Your task to perform on an android device: set the stopwatch Image 0: 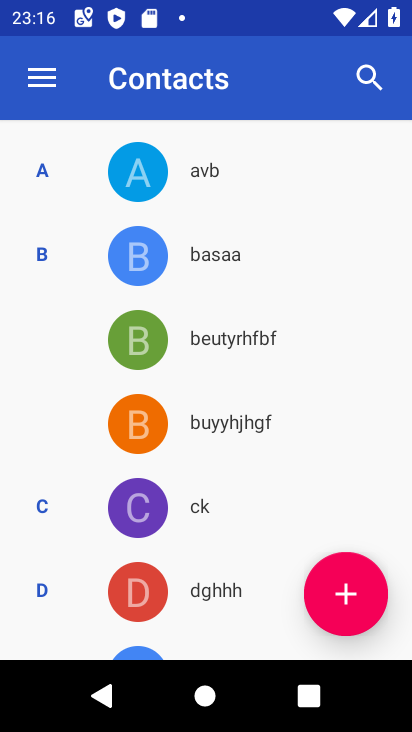
Step 0: press home button
Your task to perform on an android device: set the stopwatch Image 1: 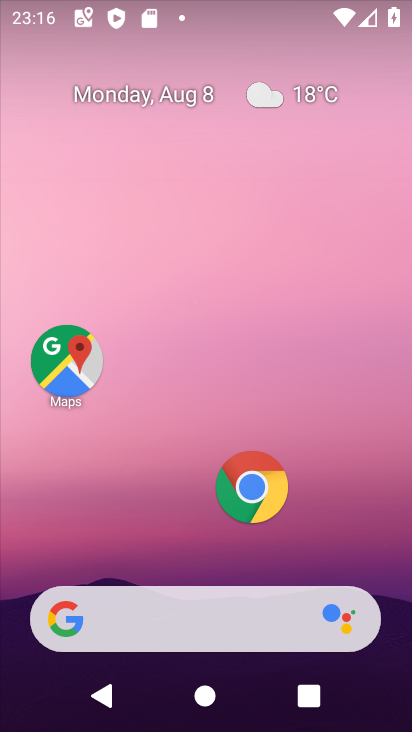
Step 1: drag from (203, 574) to (230, 116)
Your task to perform on an android device: set the stopwatch Image 2: 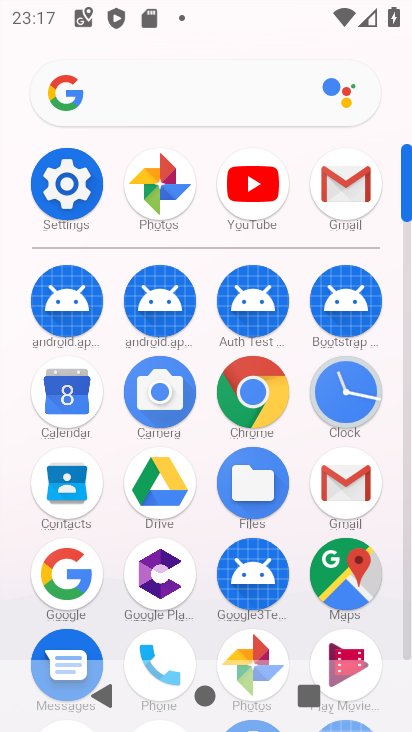
Step 2: click (341, 393)
Your task to perform on an android device: set the stopwatch Image 3: 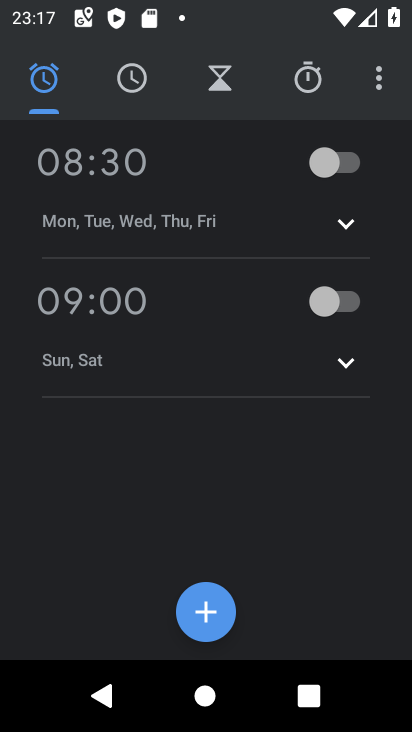
Step 3: click (297, 80)
Your task to perform on an android device: set the stopwatch Image 4: 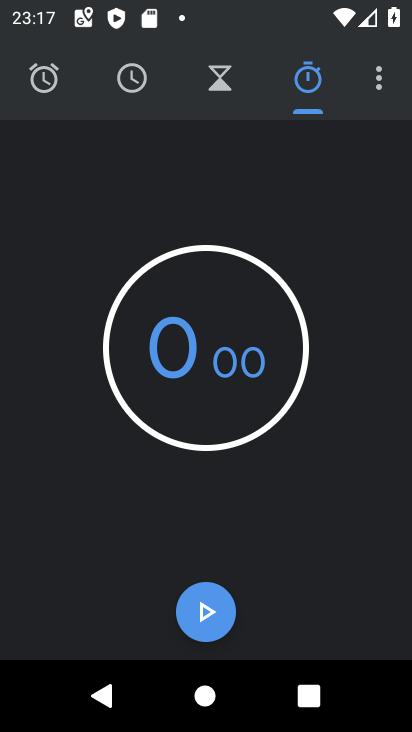
Step 4: task complete